Your task to perform on an android device: Open the calendar and show me this week's events Image 0: 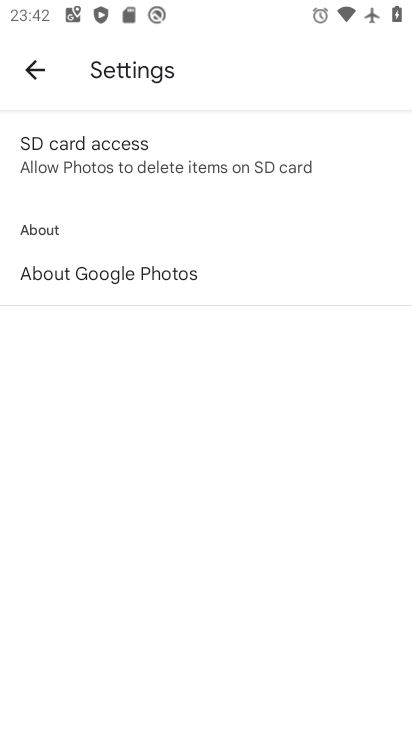
Step 0: press back button
Your task to perform on an android device: Open the calendar and show me this week's events Image 1: 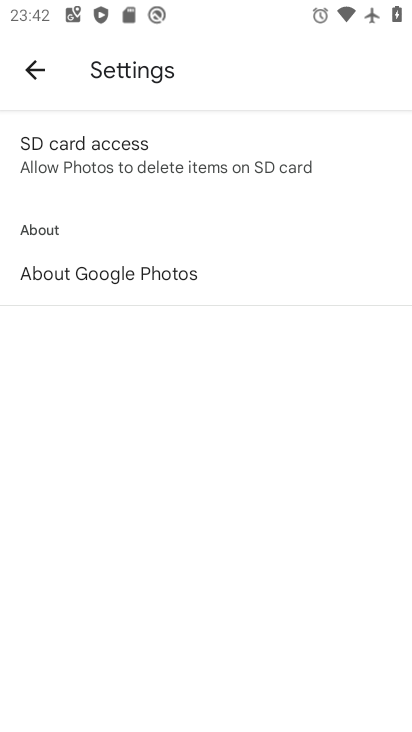
Step 1: press back button
Your task to perform on an android device: Open the calendar and show me this week's events Image 2: 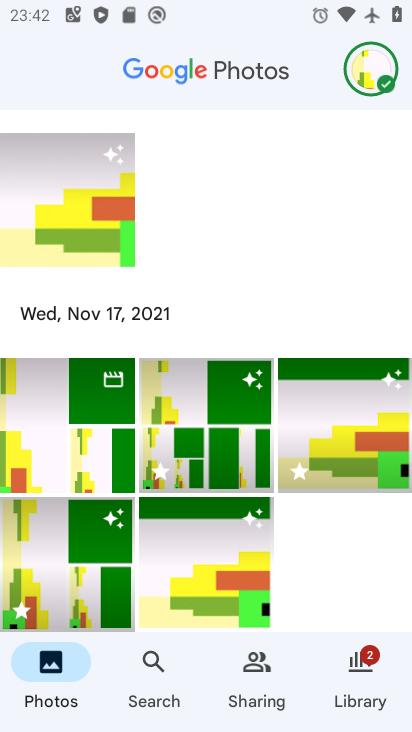
Step 2: press home button
Your task to perform on an android device: Open the calendar and show me this week's events Image 3: 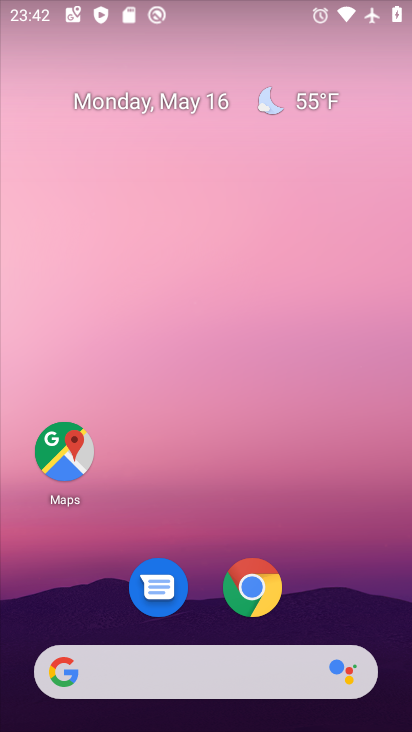
Step 3: drag from (312, 574) to (205, 13)
Your task to perform on an android device: Open the calendar and show me this week's events Image 4: 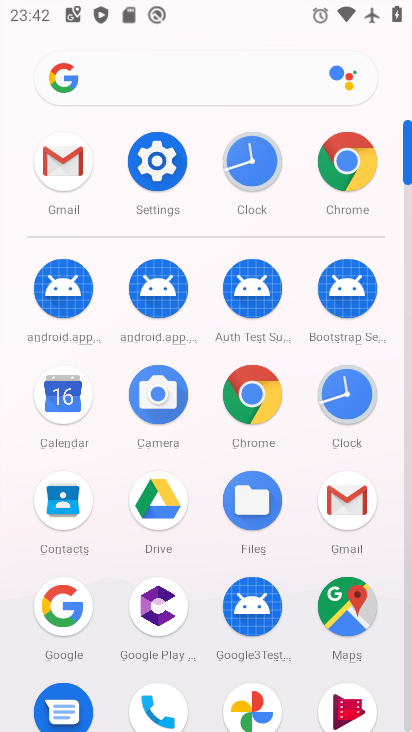
Step 4: drag from (8, 551) to (20, 260)
Your task to perform on an android device: Open the calendar and show me this week's events Image 5: 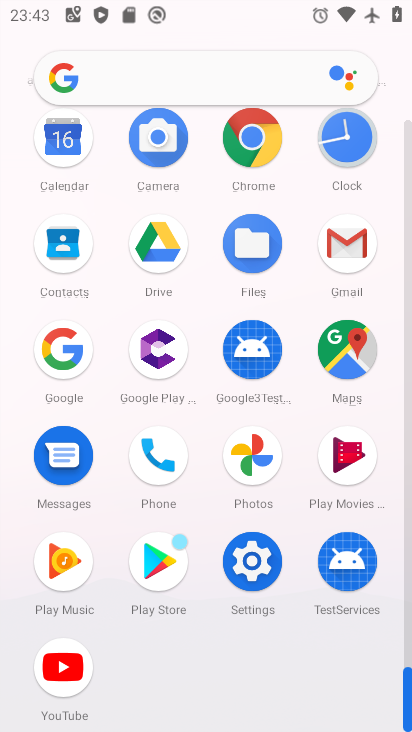
Step 5: click (65, 141)
Your task to perform on an android device: Open the calendar and show me this week's events Image 6: 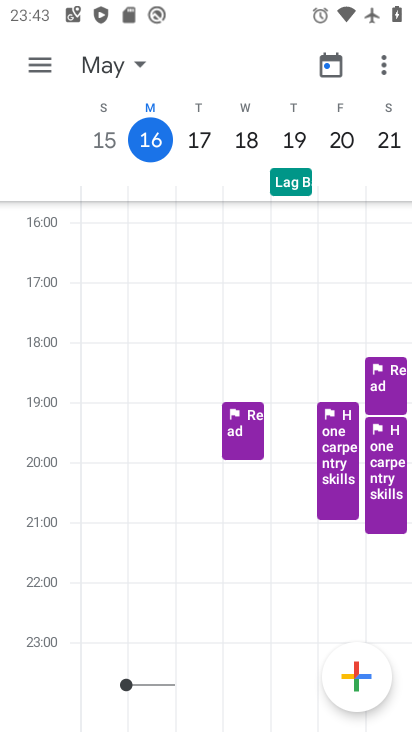
Step 6: task complete